Your task to perform on an android device: visit the assistant section in the google photos Image 0: 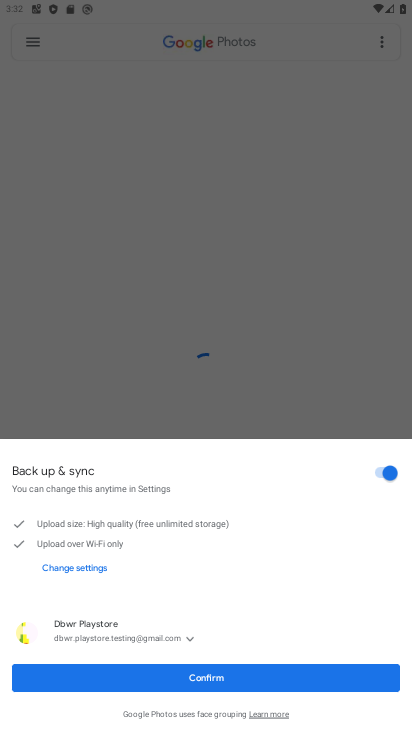
Step 0: press home button
Your task to perform on an android device: visit the assistant section in the google photos Image 1: 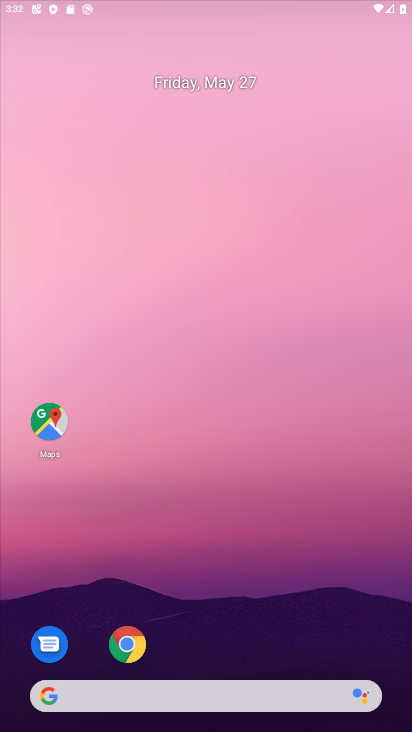
Step 1: drag from (280, 603) to (127, 3)
Your task to perform on an android device: visit the assistant section in the google photos Image 2: 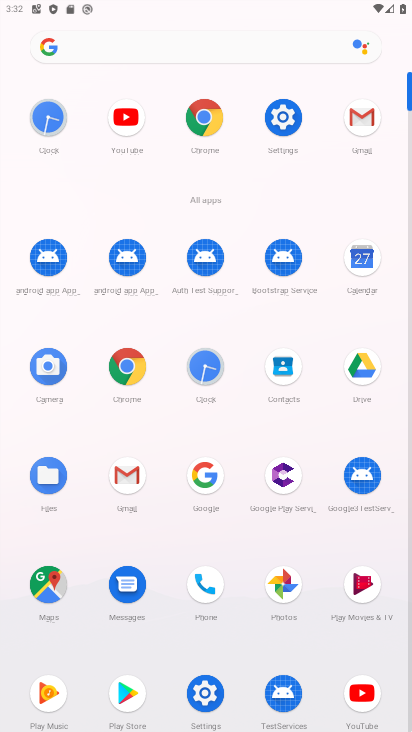
Step 2: click (295, 585)
Your task to perform on an android device: visit the assistant section in the google photos Image 3: 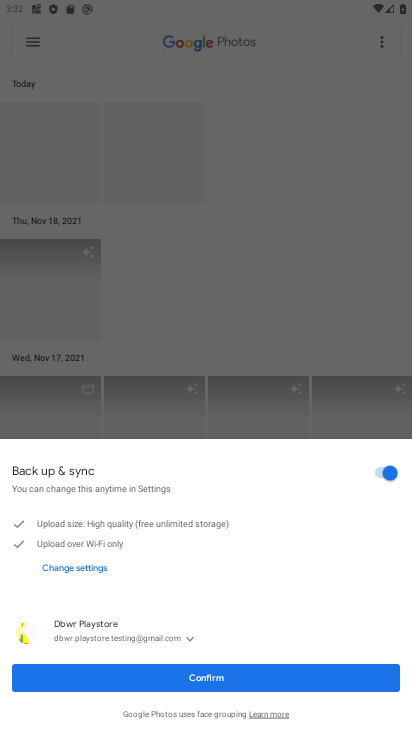
Step 3: click (251, 676)
Your task to perform on an android device: visit the assistant section in the google photos Image 4: 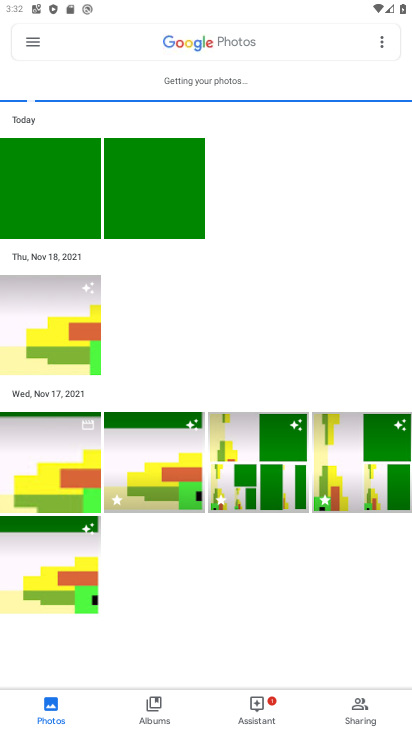
Step 4: click (254, 701)
Your task to perform on an android device: visit the assistant section in the google photos Image 5: 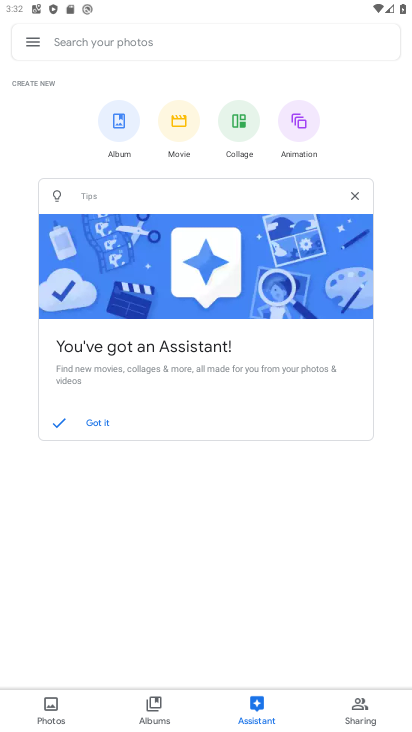
Step 5: task complete